Your task to perform on an android device: Open internet settings Image 0: 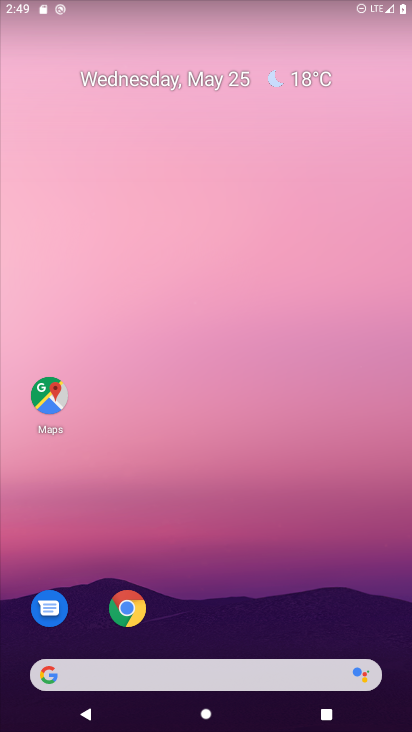
Step 0: drag from (359, 632) to (265, 192)
Your task to perform on an android device: Open internet settings Image 1: 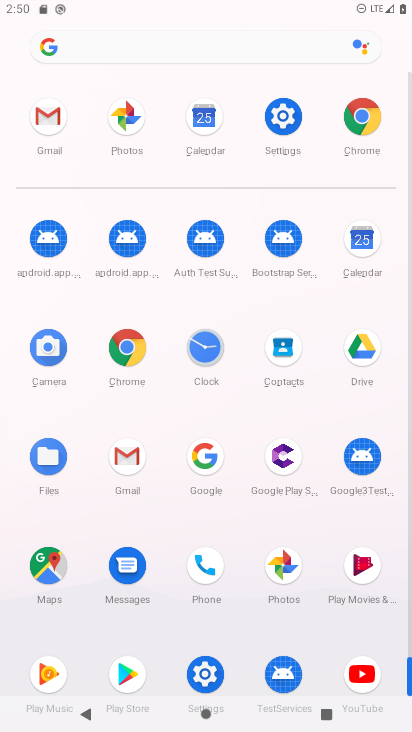
Step 1: click (208, 676)
Your task to perform on an android device: Open internet settings Image 2: 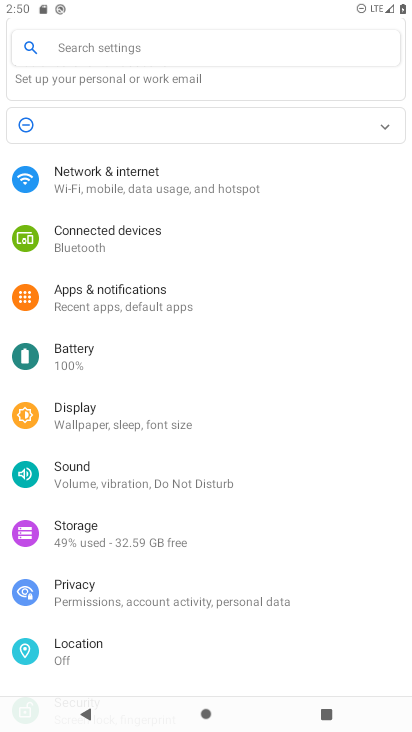
Step 2: click (91, 184)
Your task to perform on an android device: Open internet settings Image 3: 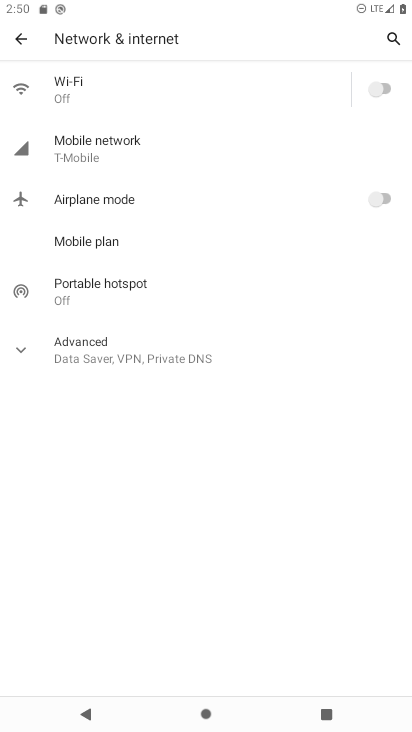
Step 3: click (65, 73)
Your task to perform on an android device: Open internet settings Image 4: 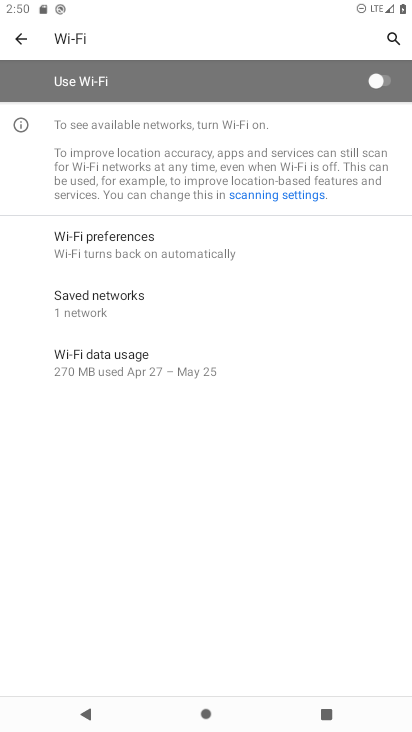
Step 4: task complete